Your task to perform on an android device: What's the weather? Image 0: 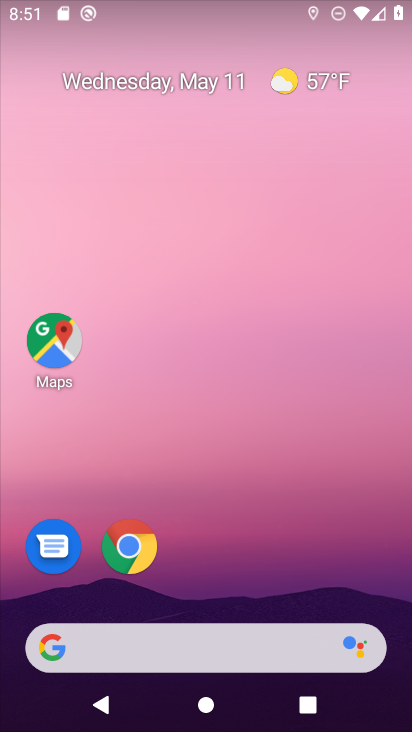
Step 0: drag from (205, 586) to (170, 189)
Your task to perform on an android device: What's the weather? Image 1: 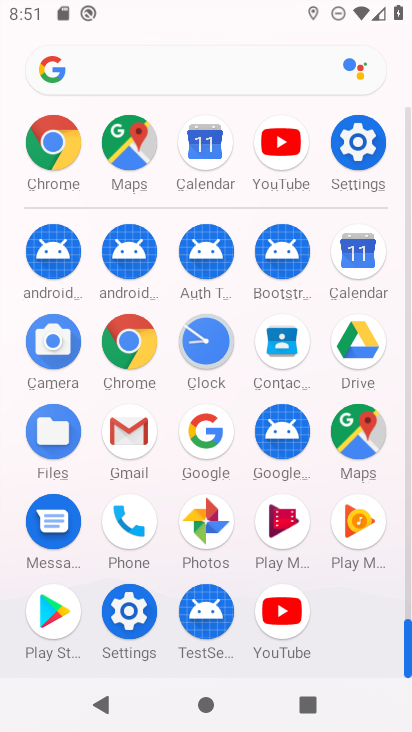
Step 1: click (201, 417)
Your task to perform on an android device: What's the weather? Image 2: 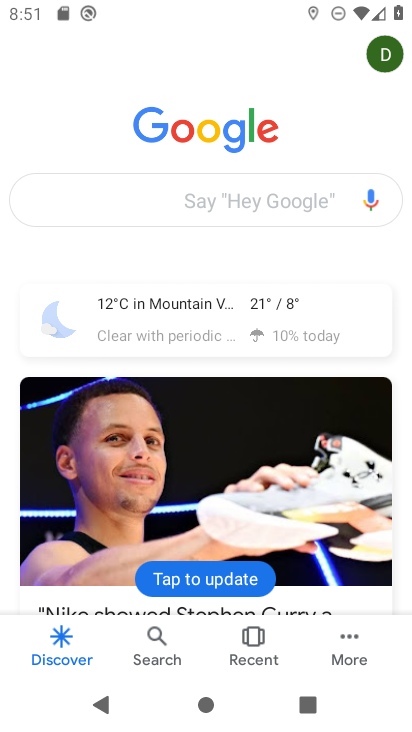
Step 2: click (166, 305)
Your task to perform on an android device: What's the weather? Image 3: 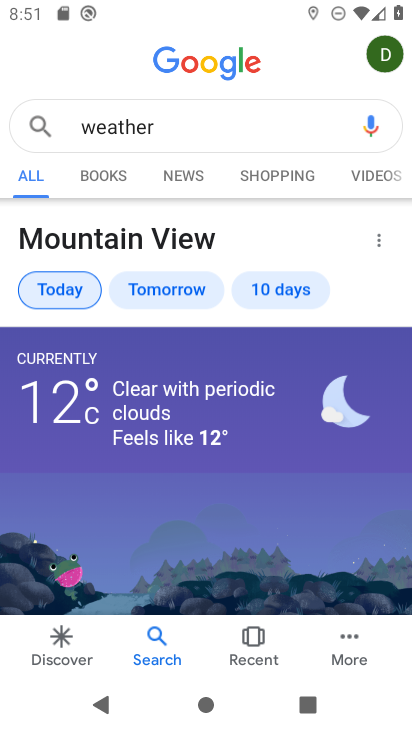
Step 3: task complete